Your task to perform on an android device: turn on notifications settings in the gmail app Image 0: 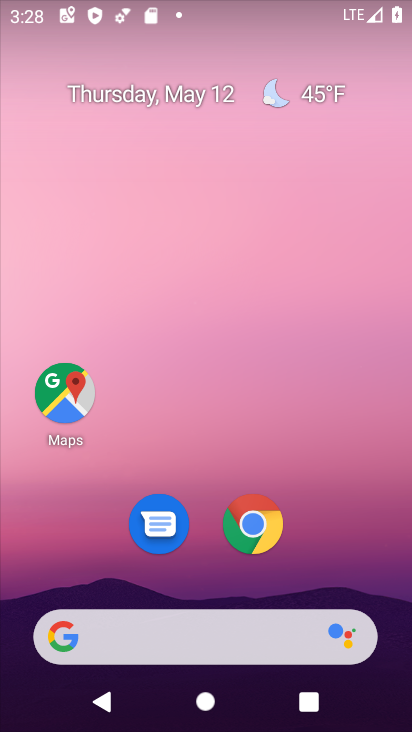
Step 0: drag from (291, 554) to (231, 19)
Your task to perform on an android device: turn on notifications settings in the gmail app Image 1: 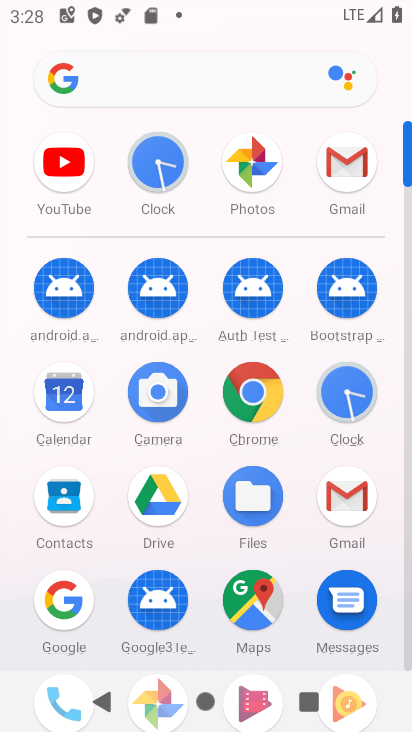
Step 1: click (355, 162)
Your task to perform on an android device: turn on notifications settings in the gmail app Image 2: 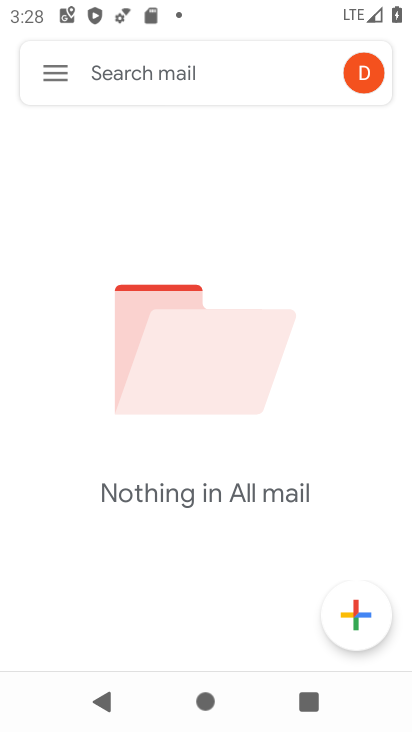
Step 2: click (55, 72)
Your task to perform on an android device: turn on notifications settings in the gmail app Image 3: 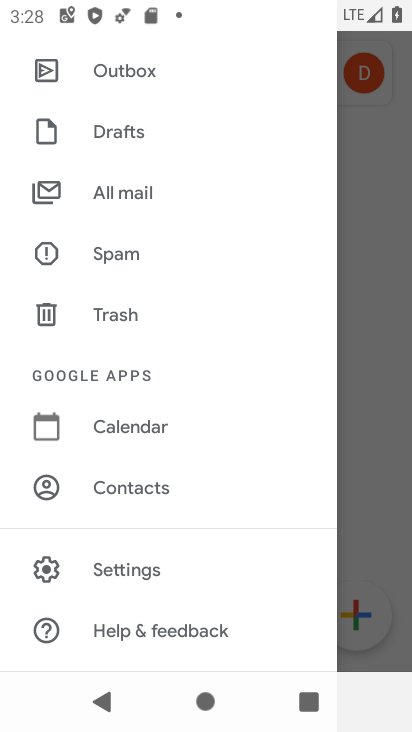
Step 3: click (157, 555)
Your task to perform on an android device: turn on notifications settings in the gmail app Image 4: 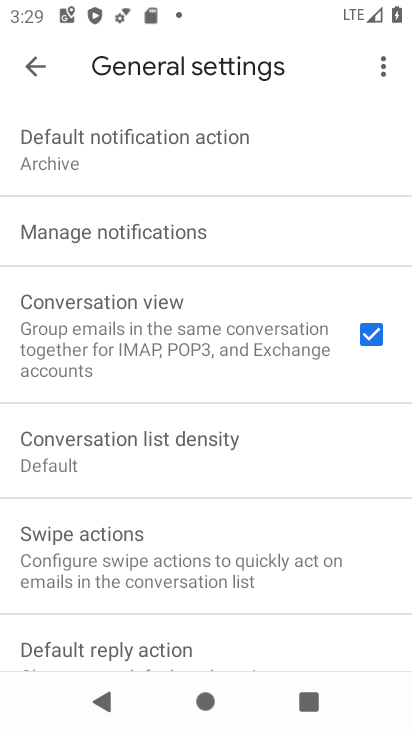
Step 4: click (184, 226)
Your task to perform on an android device: turn on notifications settings in the gmail app Image 5: 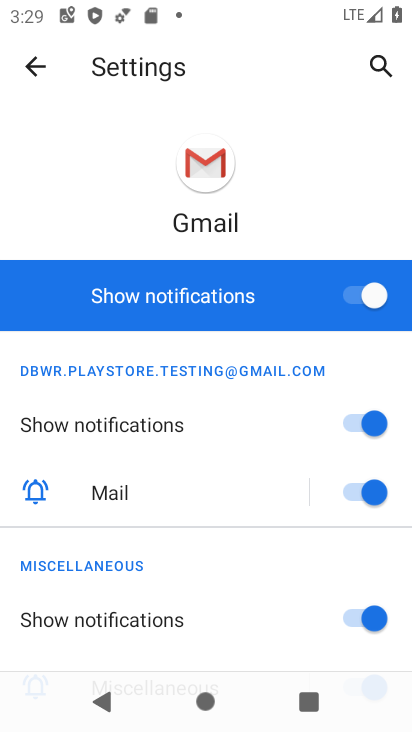
Step 5: task complete